Your task to perform on an android device: turn off improve location accuracy Image 0: 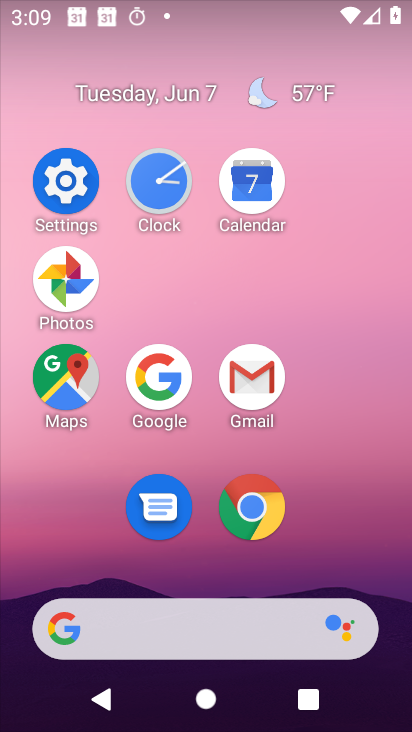
Step 0: click (72, 173)
Your task to perform on an android device: turn off improve location accuracy Image 1: 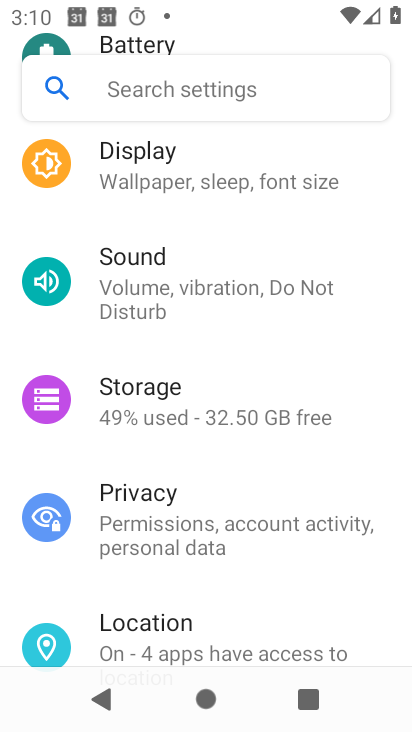
Step 1: click (214, 608)
Your task to perform on an android device: turn off improve location accuracy Image 2: 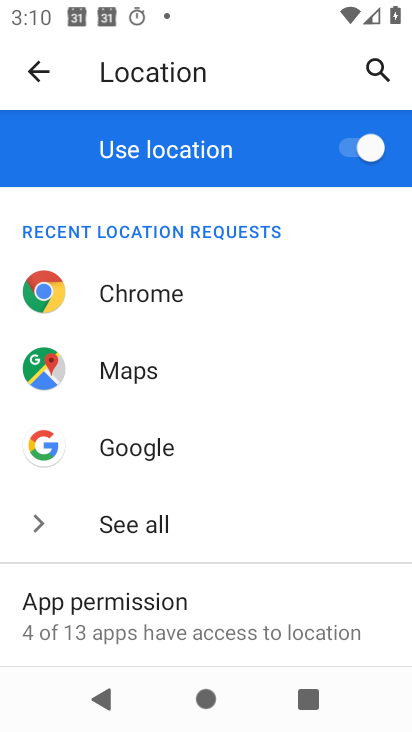
Step 2: drag from (214, 602) to (309, 154)
Your task to perform on an android device: turn off improve location accuracy Image 3: 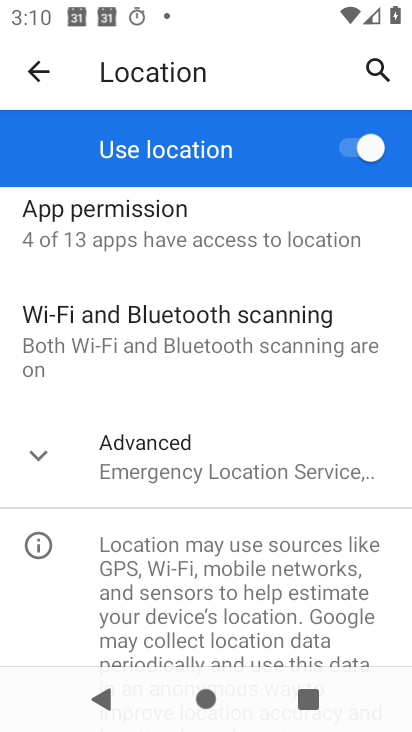
Step 3: click (220, 464)
Your task to perform on an android device: turn off improve location accuracy Image 4: 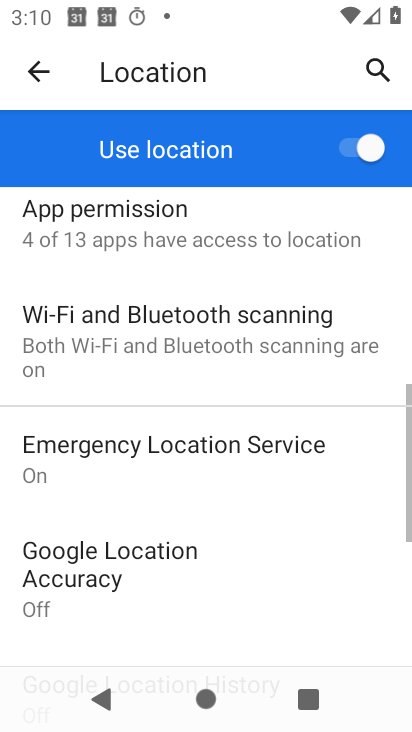
Step 4: drag from (220, 551) to (217, 266)
Your task to perform on an android device: turn off improve location accuracy Image 5: 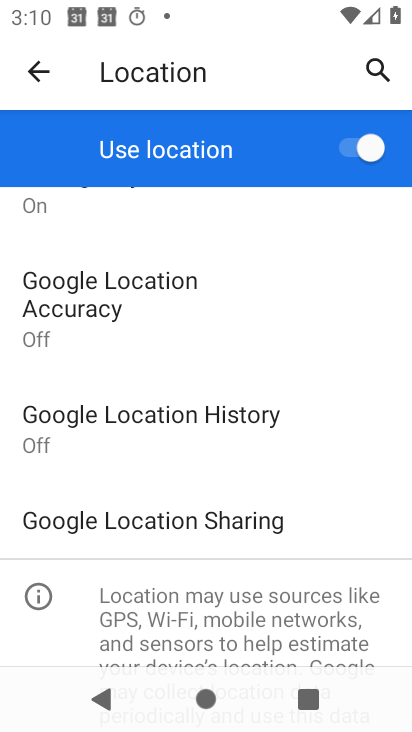
Step 5: click (154, 330)
Your task to perform on an android device: turn off improve location accuracy Image 6: 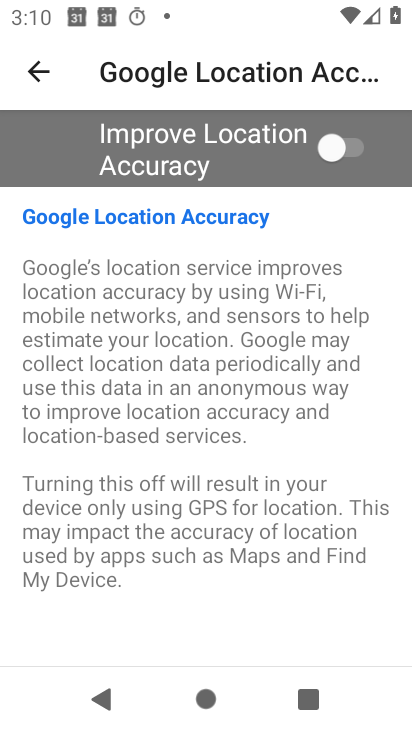
Step 6: task complete